Your task to perform on an android device: change the clock display to analog Image 0: 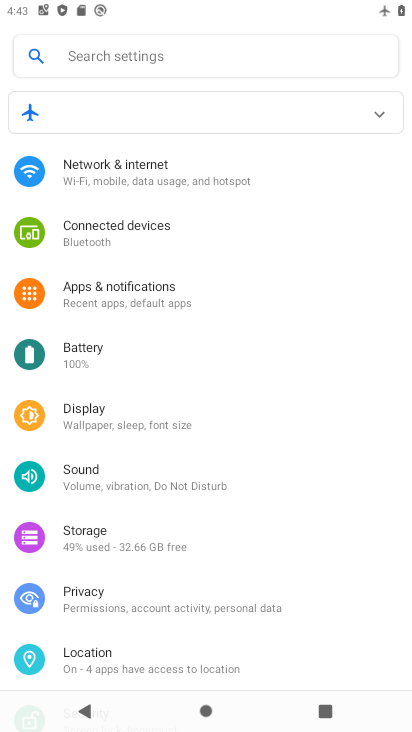
Step 0: press back button
Your task to perform on an android device: change the clock display to analog Image 1: 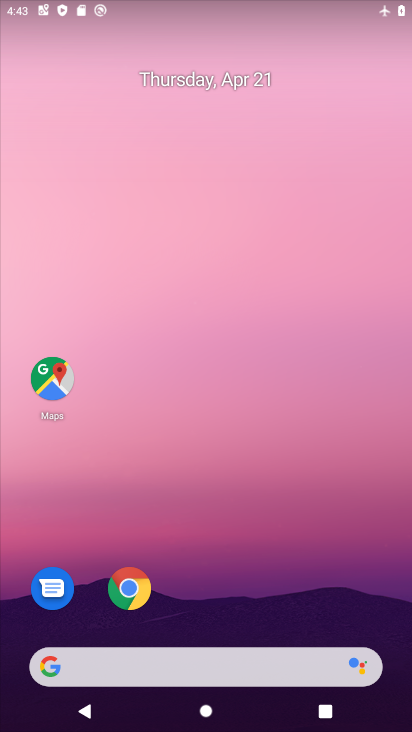
Step 1: drag from (192, 586) to (281, 16)
Your task to perform on an android device: change the clock display to analog Image 2: 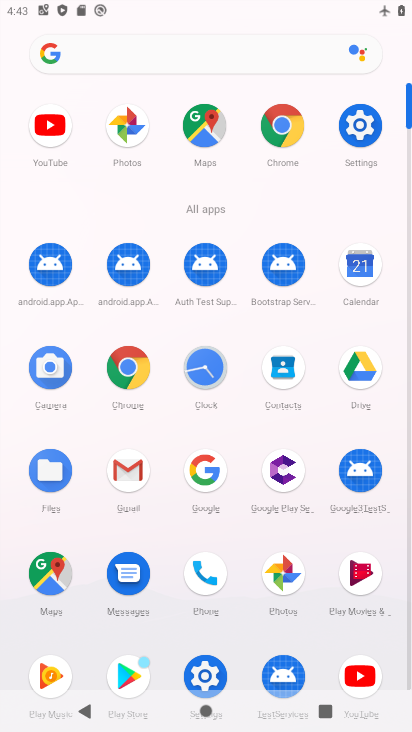
Step 2: click (199, 367)
Your task to perform on an android device: change the clock display to analog Image 3: 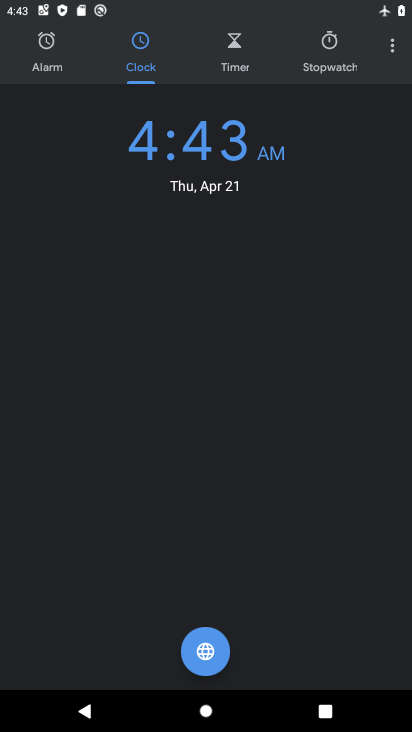
Step 3: click (390, 41)
Your task to perform on an android device: change the clock display to analog Image 4: 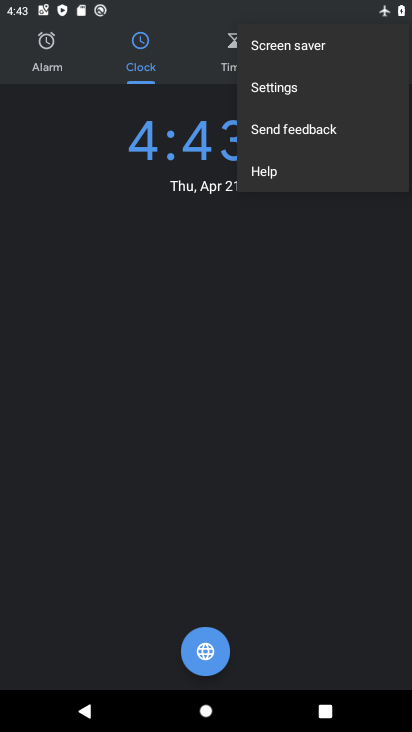
Step 4: click (285, 86)
Your task to perform on an android device: change the clock display to analog Image 5: 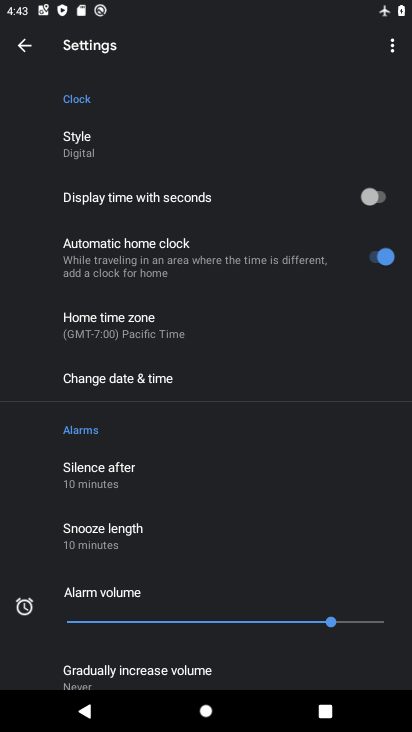
Step 5: click (121, 141)
Your task to perform on an android device: change the clock display to analog Image 6: 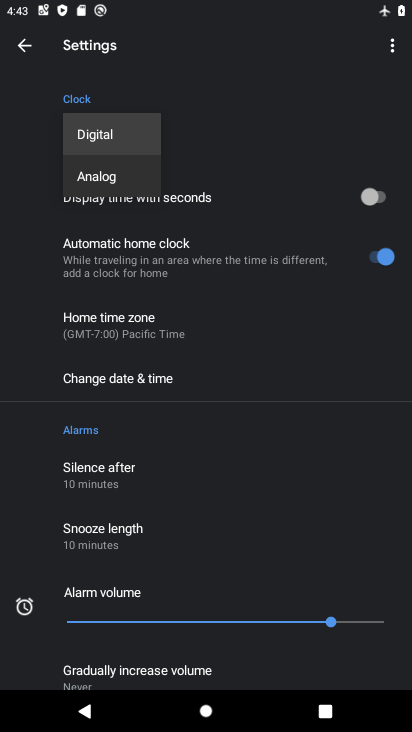
Step 6: click (103, 177)
Your task to perform on an android device: change the clock display to analog Image 7: 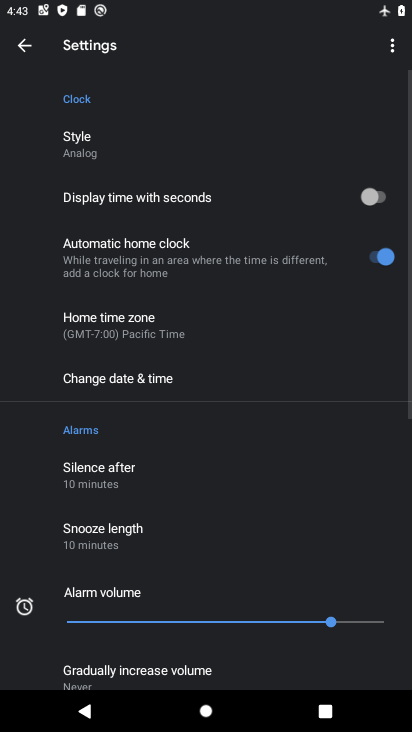
Step 7: task complete